Your task to perform on an android device: Go to Yahoo.com Image 0: 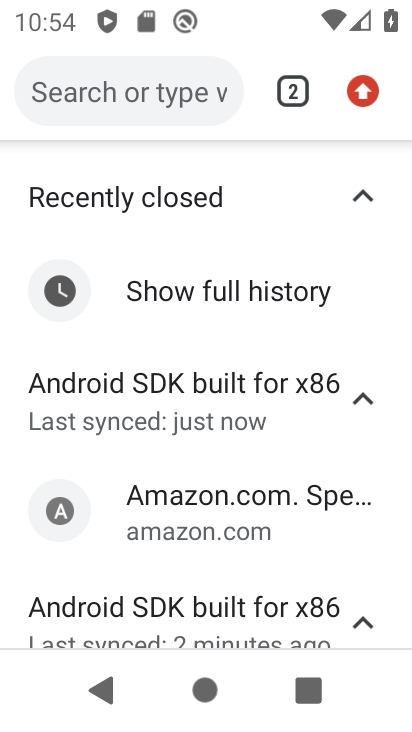
Step 0: press home button
Your task to perform on an android device: Go to Yahoo.com Image 1: 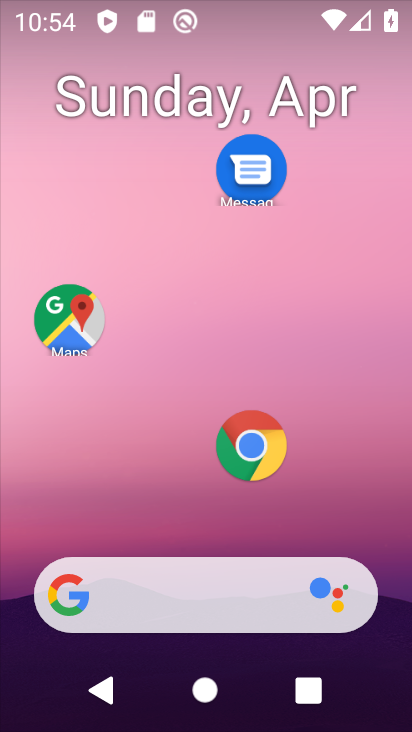
Step 1: drag from (180, 581) to (304, 89)
Your task to perform on an android device: Go to Yahoo.com Image 2: 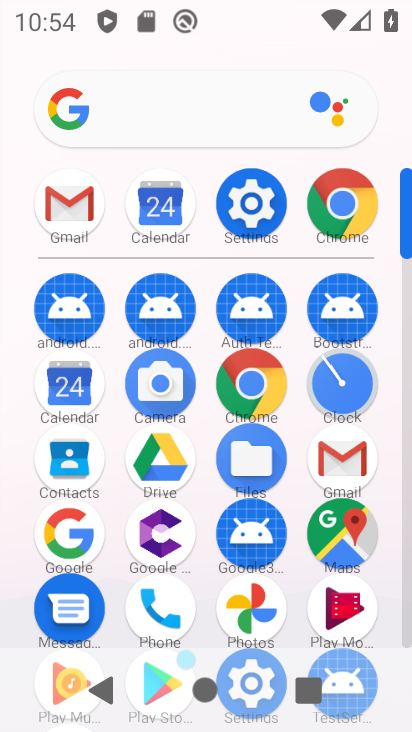
Step 2: click (340, 216)
Your task to perform on an android device: Go to Yahoo.com Image 3: 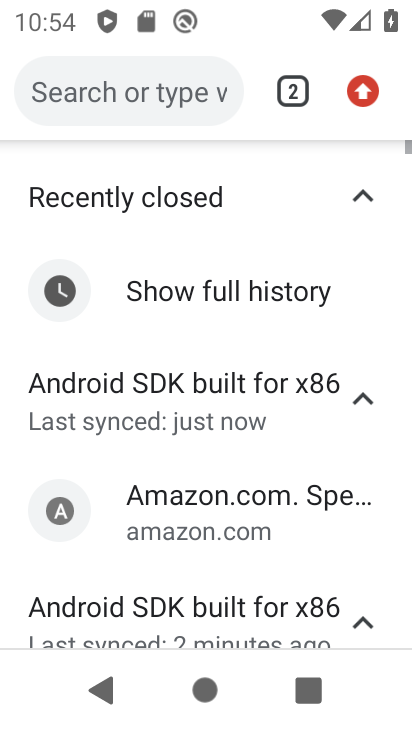
Step 3: click (358, 113)
Your task to perform on an android device: Go to Yahoo.com Image 4: 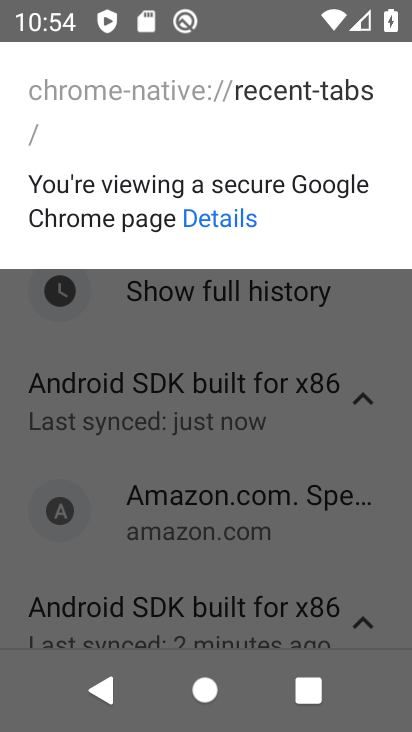
Step 4: click (361, 108)
Your task to perform on an android device: Go to Yahoo.com Image 5: 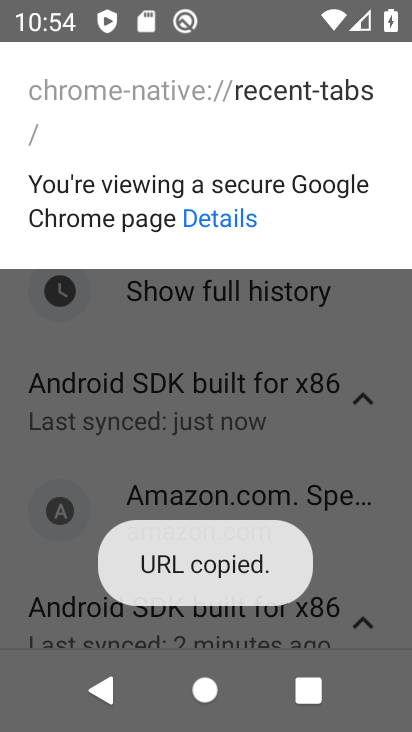
Step 5: press back button
Your task to perform on an android device: Go to Yahoo.com Image 6: 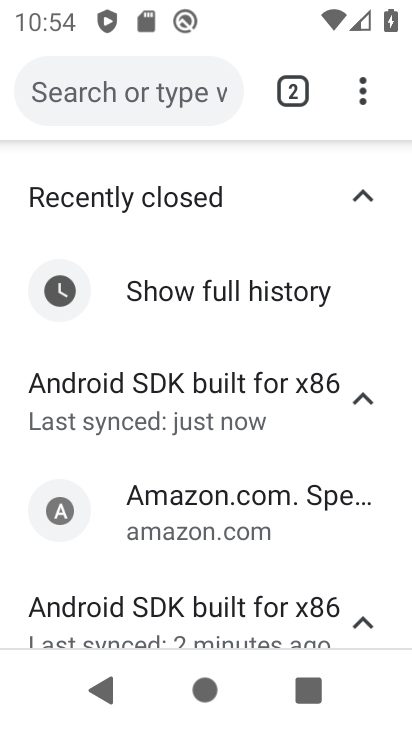
Step 6: drag from (362, 92) to (108, 294)
Your task to perform on an android device: Go to Yahoo.com Image 7: 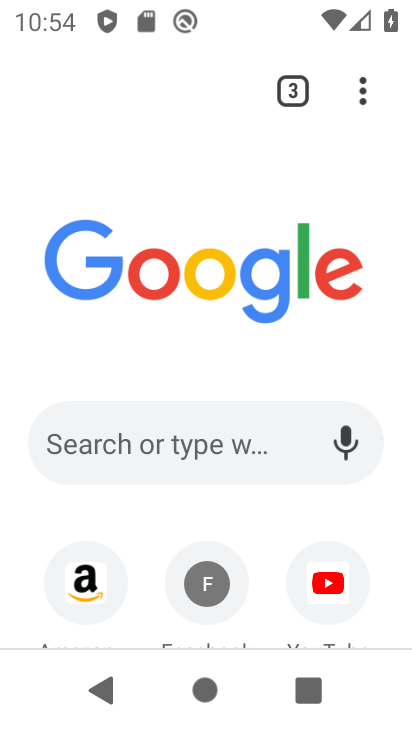
Step 7: drag from (136, 555) to (344, 186)
Your task to perform on an android device: Go to Yahoo.com Image 8: 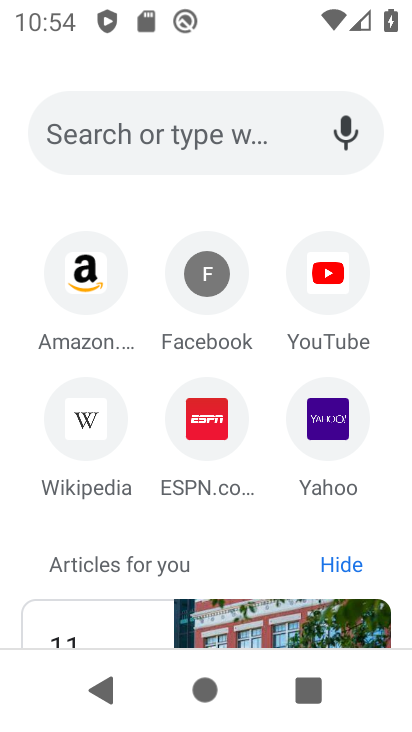
Step 8: click (326, 428)
Your task to perform on an android device: Go to Yahoo.com Image 9: 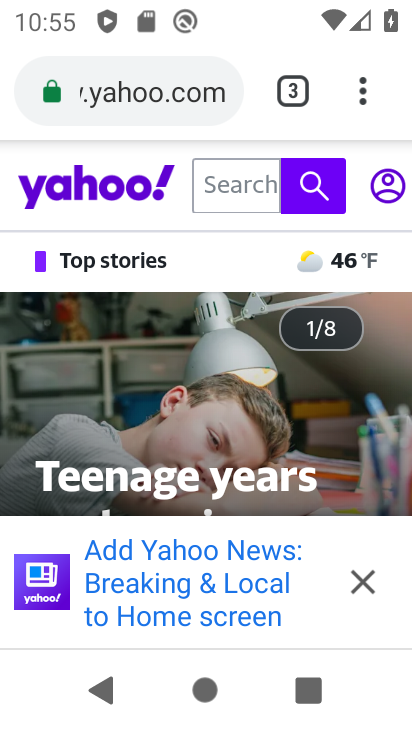
Step 9: task complete